Your task to perform on an android device: Search for vegetarian restaurants on Maps Image 0: 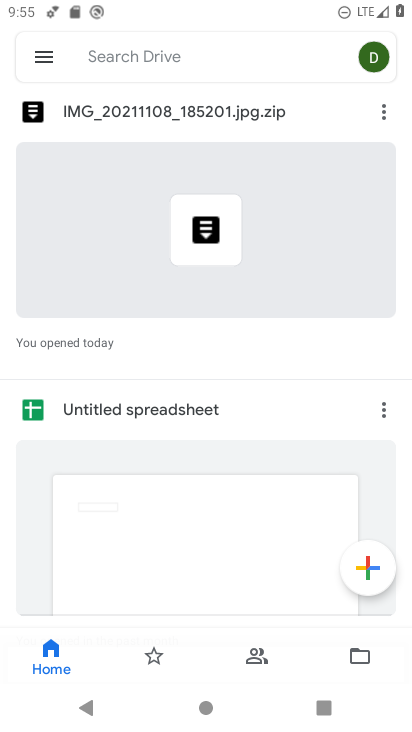
Step 0: press home button
Your task to perform on an android device: Search for vegetarian restaurants on Maps Image 1: 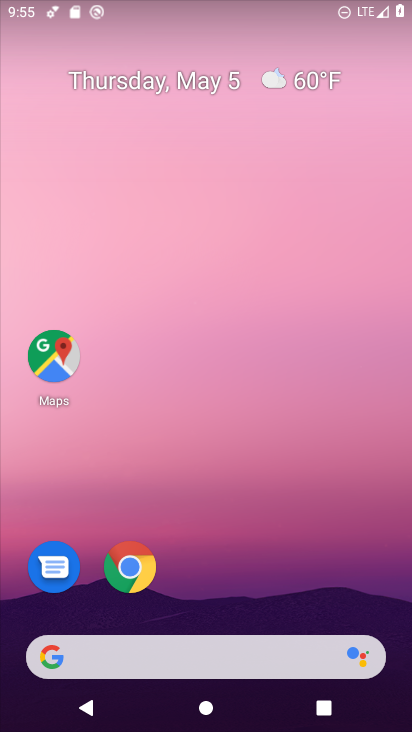
Step 1: drag from (235, 725) to (215, 183)
Your task to perform on an android device: Search for vegetarian restaurants on Maps Image 2: 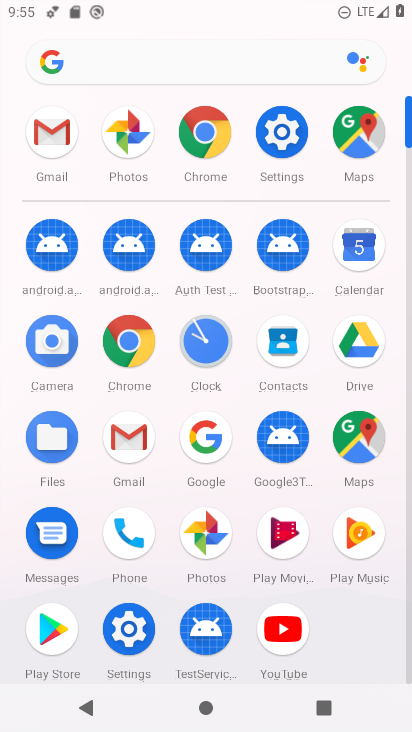
Step 2: click (360, 449)
Your task to perform on an android device: Search for vegetarian restaurants on Maps Image 3: 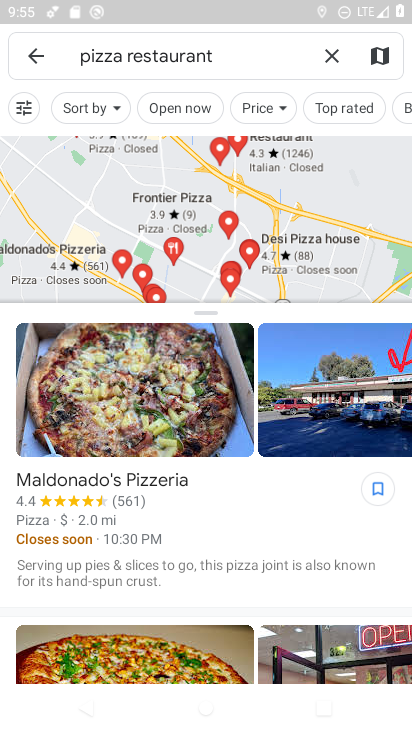
Step 3: click (331, 54)
Your task to perform on an android device: Search for vegetarian restaurants on Maps Image 4: 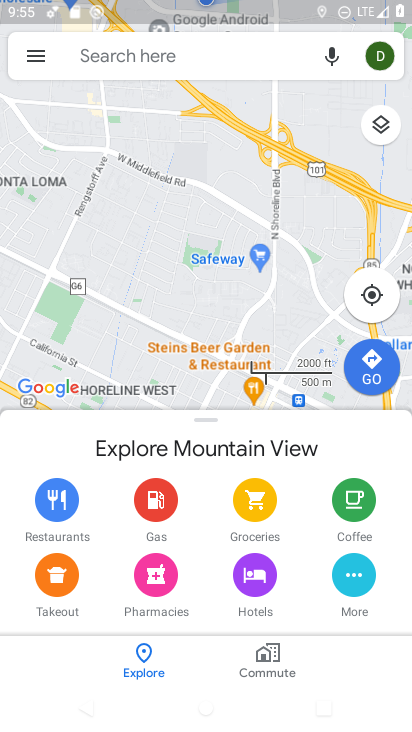
Step 4: click (187, 56)
Your task to perform on an android device: Search for vegetarian restaurants on Maps Image 5: 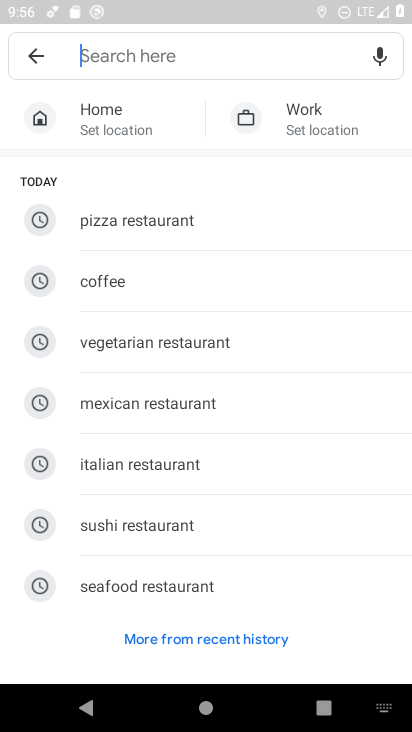
Step 5: type "vegetarian restaurants"
Your task to perform on an android device: Search for vegetarian restaurants on Maps Image 6: 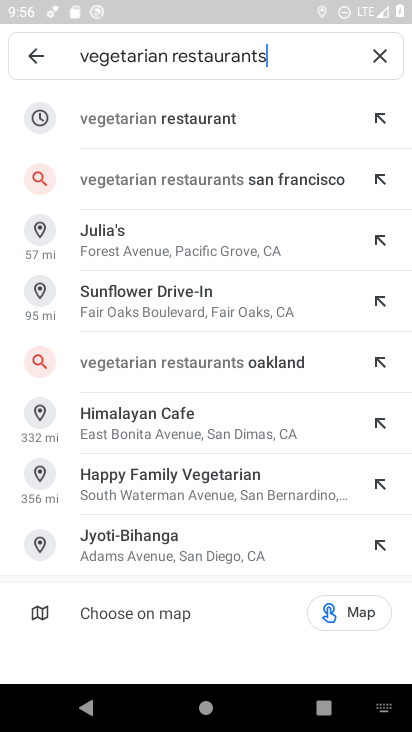
Step 6: click (197, 120)
Your task to perform on an android device: Search for vegetarian restaurants on Maps Image 7: 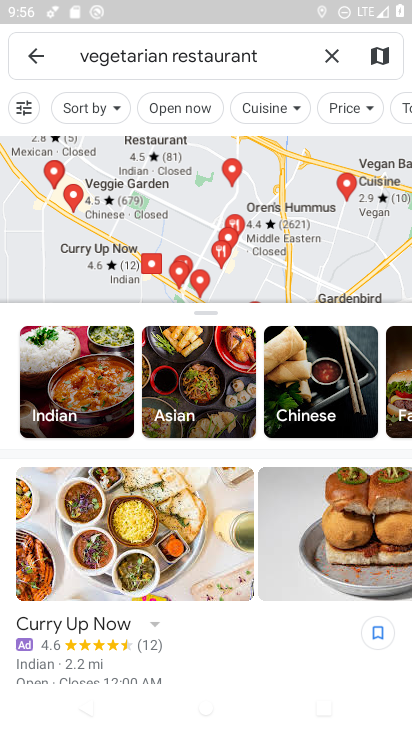
Step 7: task complete